Your task to perform on an android device: delete the emails in spam in the gmail app Image 0: 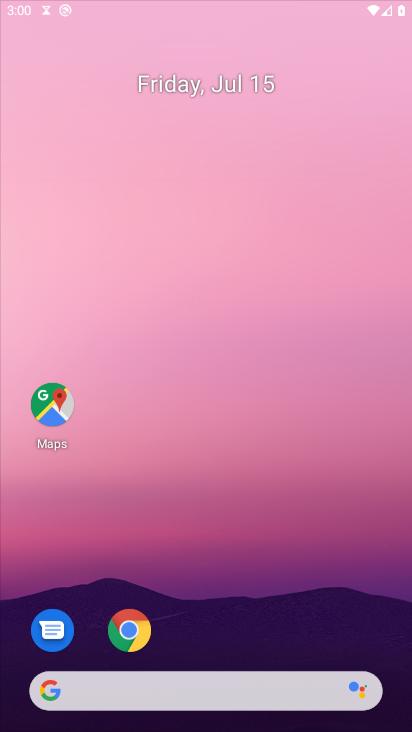
Step 0: press home button
Your task to perform on an android device: delete the emails in spam in the gmail app Image 1: 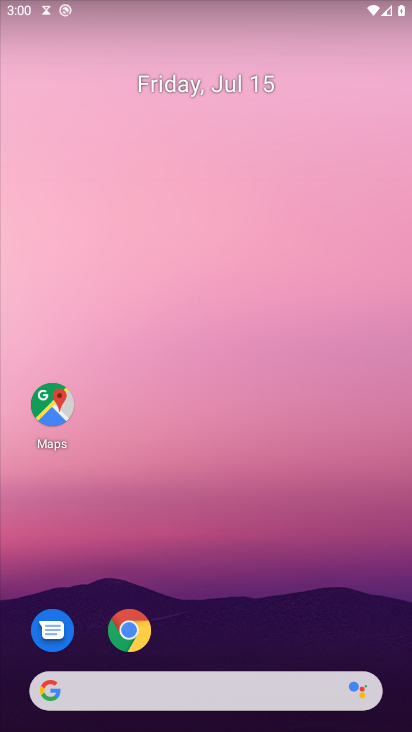
Step 1: drag from (236, 511) to (241, 3)
Your task to perform on an android device: delete the emails in spam in the gmail app Image 2: 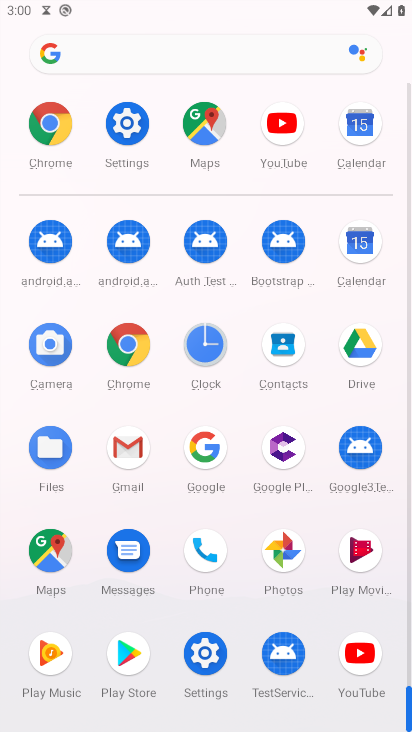
Step 2: click (129, 450)
Your task to perform on an android device: delete the emails in spam in the gmail app Image 3: 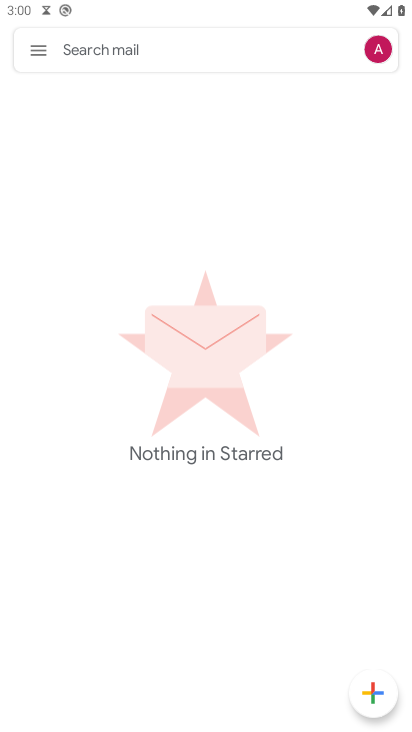
Step 3: click (29, 52)
Your task to perform on an android device: delete the emails in spam in the gmail app Image 4: 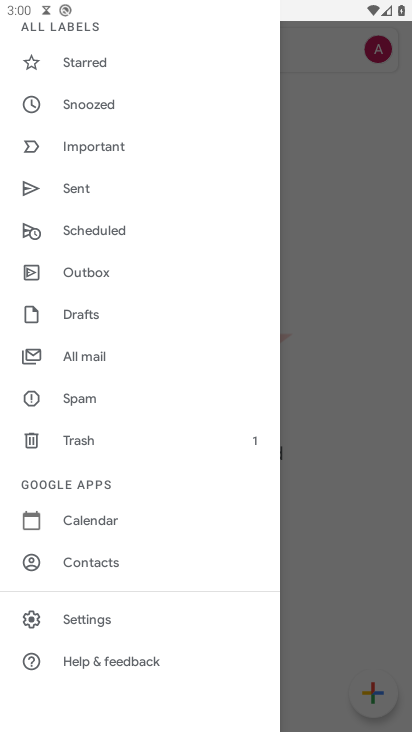
Step 4: click (79, 407)
Your task to perform on an android device: delete the emails in spam in the gmail app Image 5: 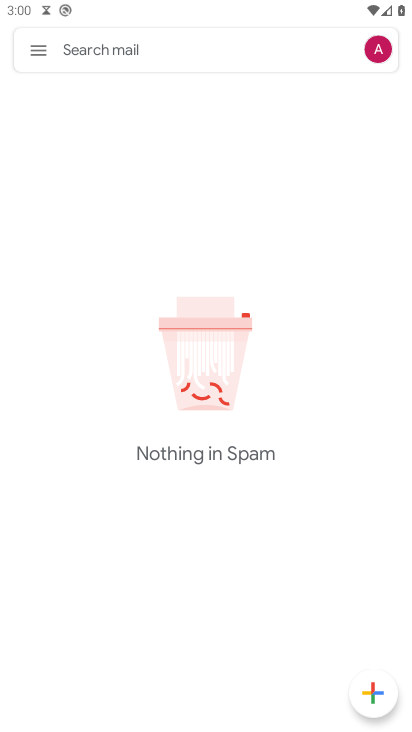
Step 5: task complete